Your task to perform on an android device: Go to settings Image 0: 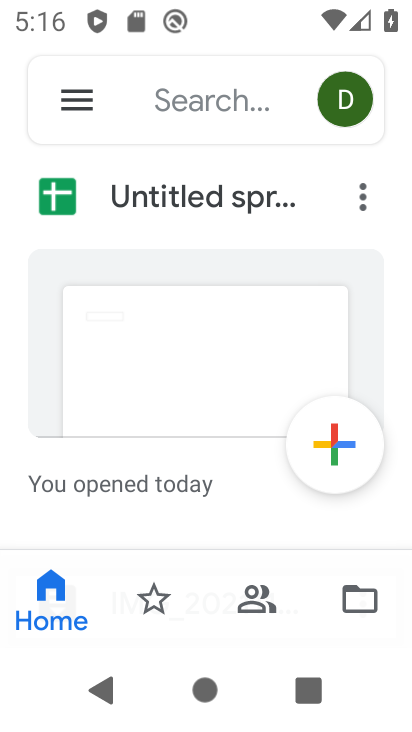
Step 0: press home button
Your task to perform on an android device: Go to settings Image 1: 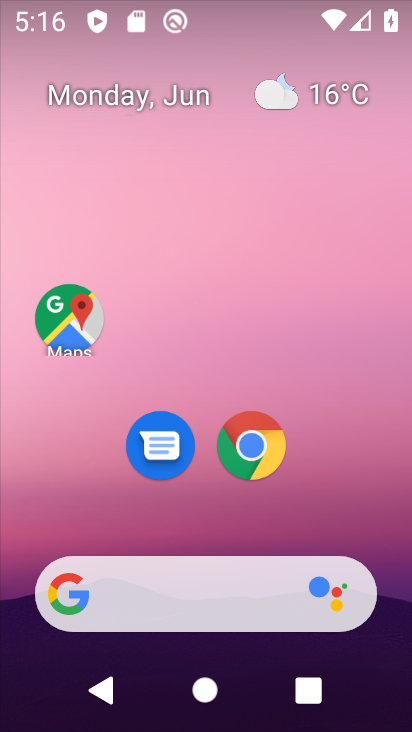
Step 1: drag from (299, 492) to (196, 78)
Your task to perform on an android device: Go to settings Image 2: 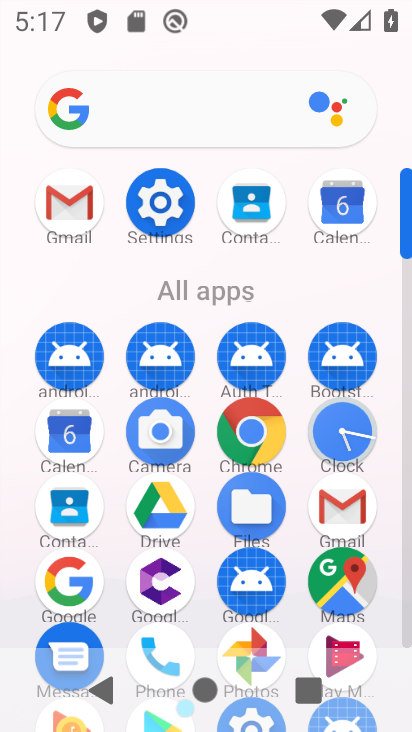
Step 2: click (165, 200)
Your task to perform on an android device: Go to settings Image 3: 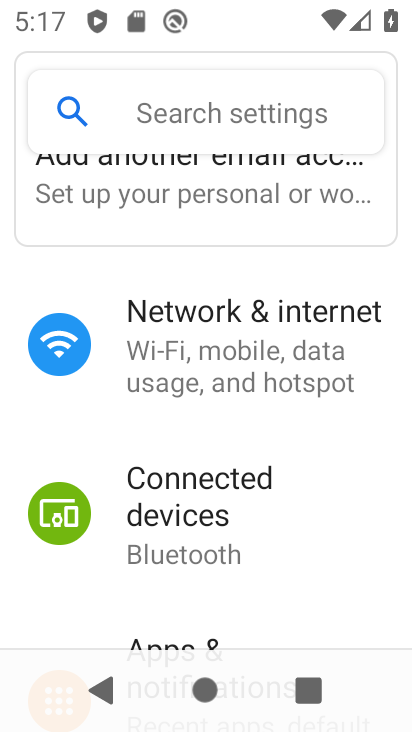
Step 3: task complete